Your task to perform on an android device: What's the weather today? Image 0: 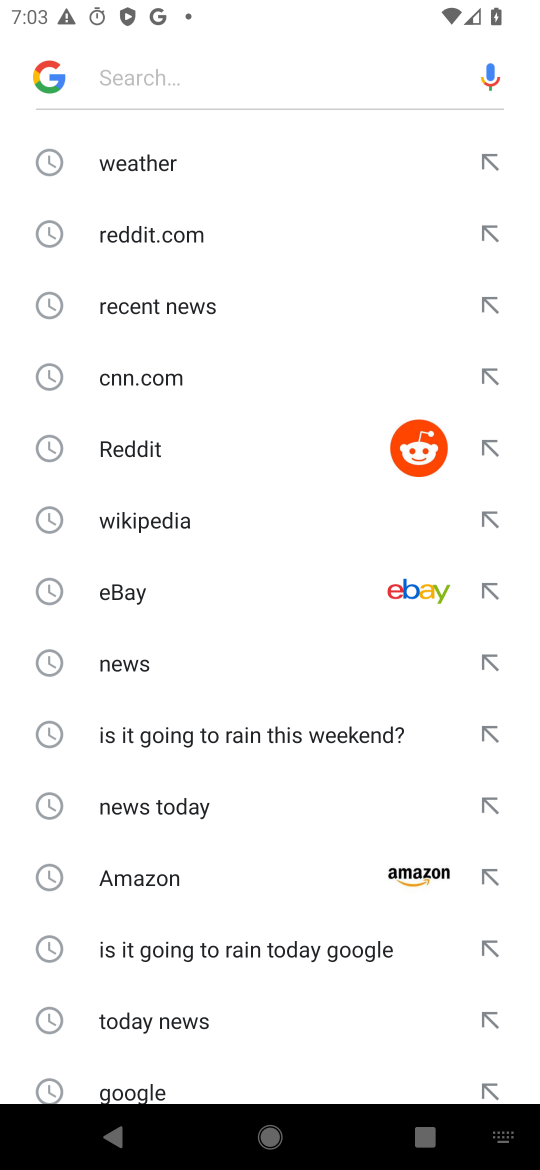
Step 0: press home button
Your task to perform on an android device: What's the weather today? Image 1: 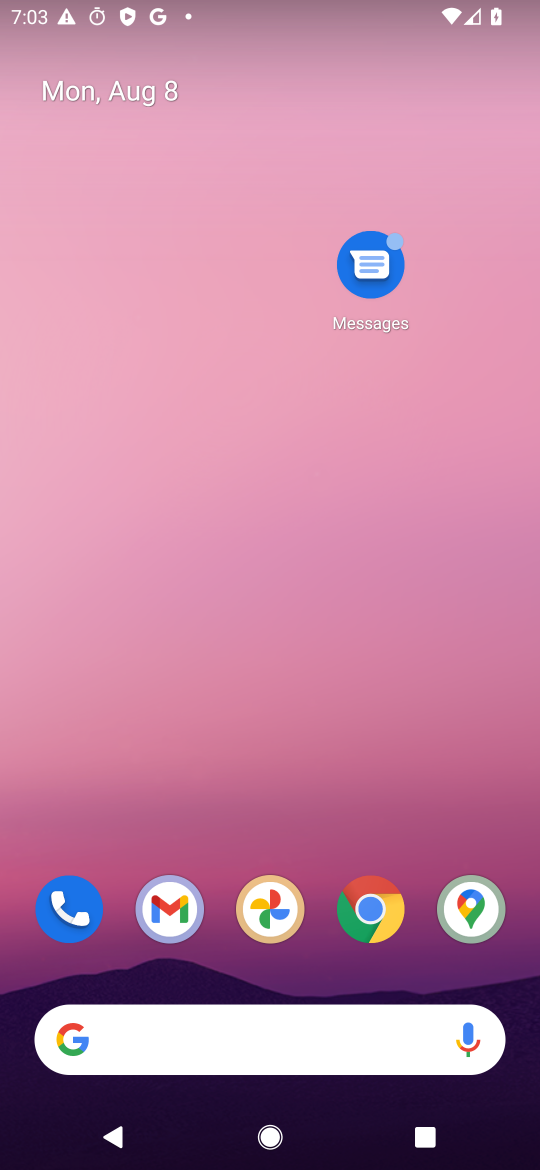
Step 1: click (195, 1041)
Your task to perform on an android device: What's the weather today? Image 2: 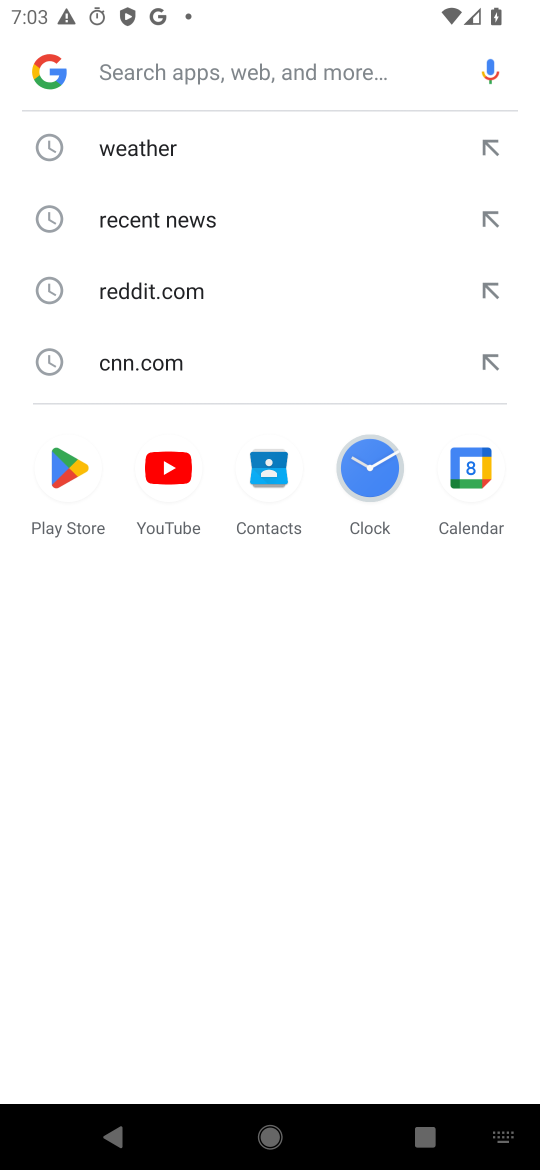
Step 2: click (154, 146)
Your task to perform on an android device: What's the weather today? Image 3: 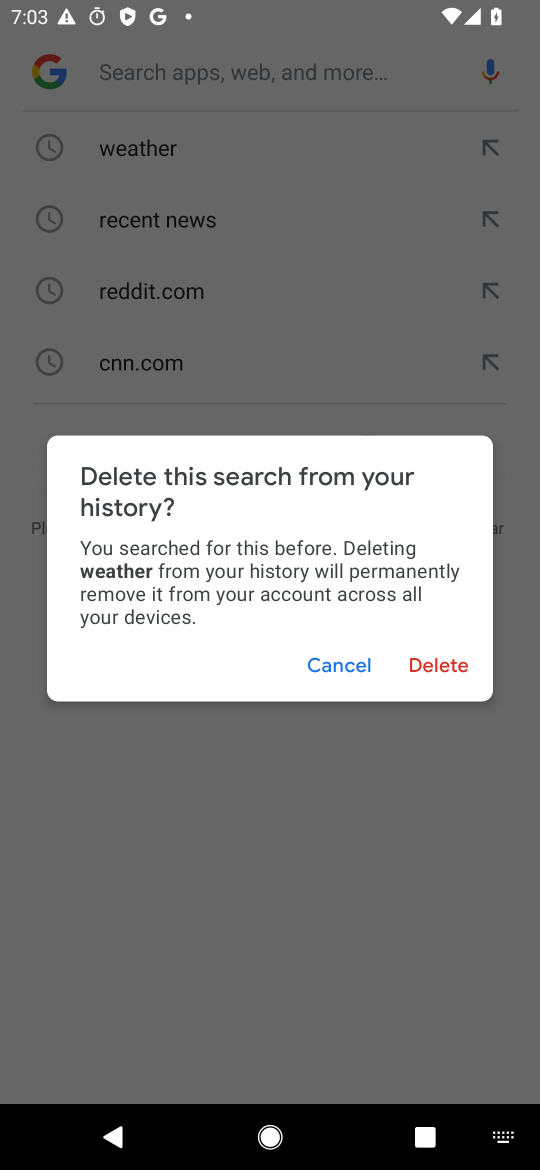
Step 3: click (331, 673)
Your task to perform on an android device: What's the weather today? Image 4: 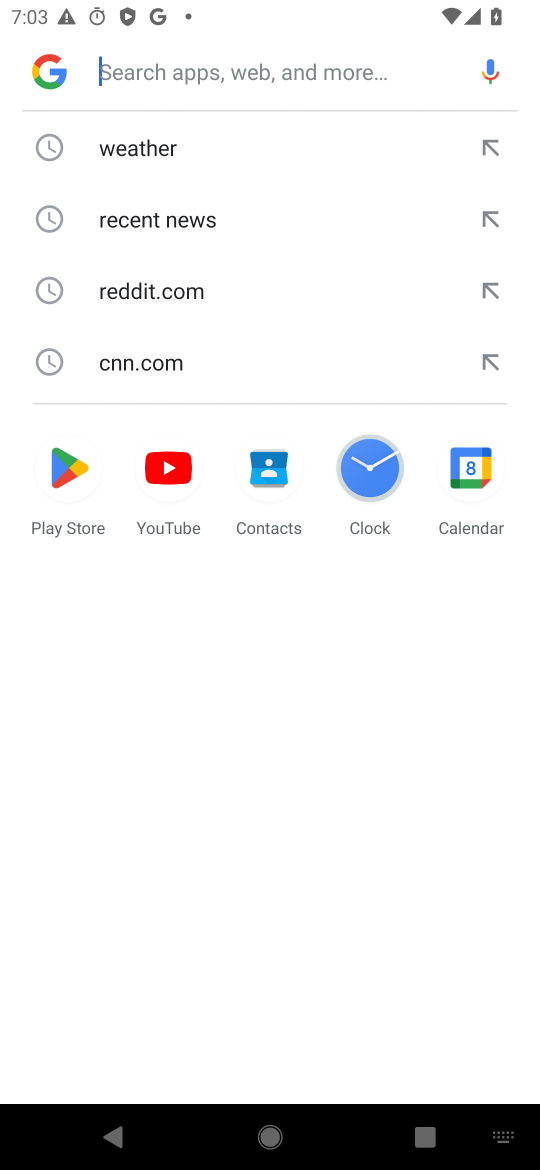
Step 4: click (162, 140)
Your task to perform on an android device: What's the weather today? Image 5: 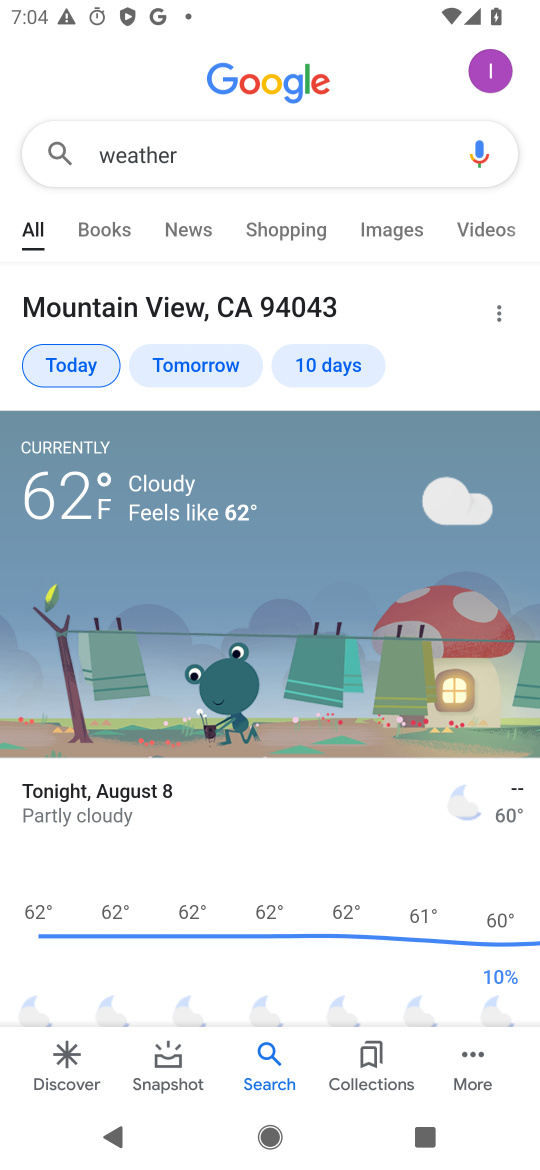
Step 5: task complete